Your task to perform on an android device: toggle priority inbox in the gmail app Image 0: 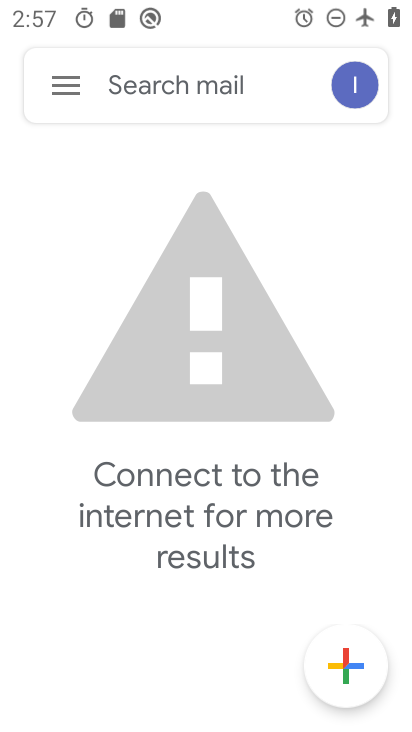
Step 0: press home button
Your task to perform on an android device: toggle priority inbox in the gmail app Image 1: 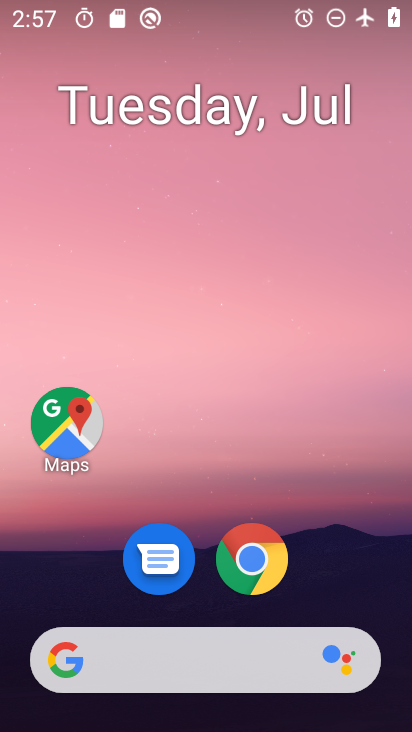
Step 1: drag from (326, 566) to (368, 147)
Your task to perform on an android device: toggle priority inbox in the gmail app Image 2: 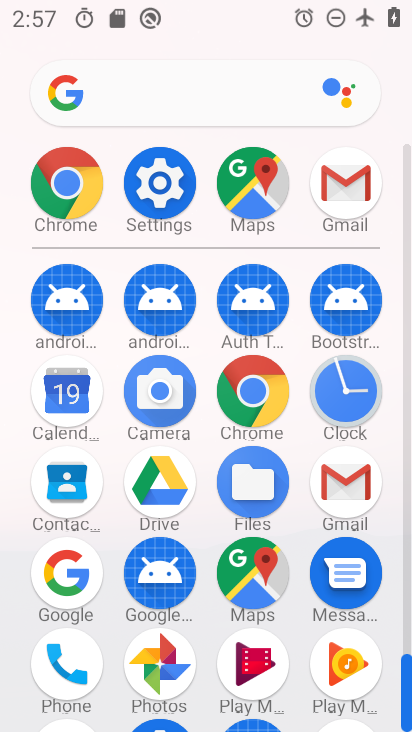
Step 2: click (352, 192)
Your task to perform on an android device: toggle priority inbox in the gmail app Image 3: 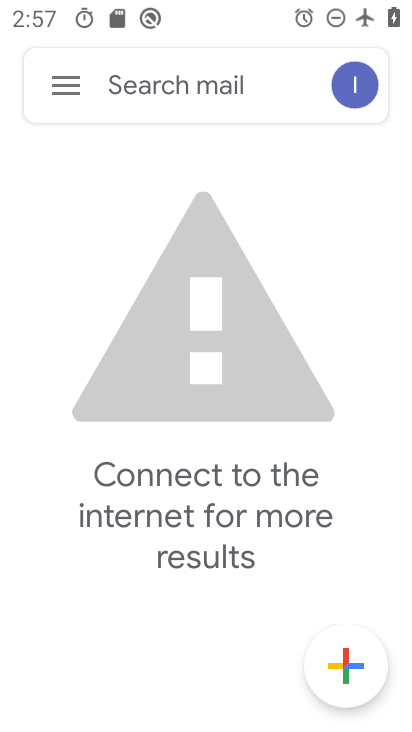
Step 3: click (66, 86)
Your task to perform on an android device: toggle priority inbox in the gmail app Image 4: 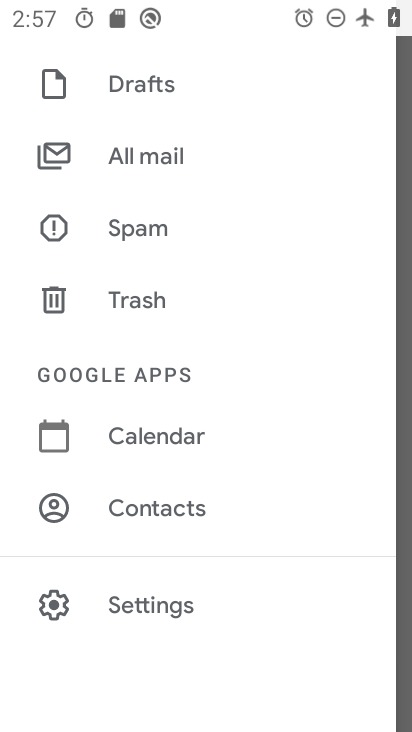
Step 4: click (148, 606)
Your task to perform on an android device: toggle priority inbox in the gmail app Image 5: 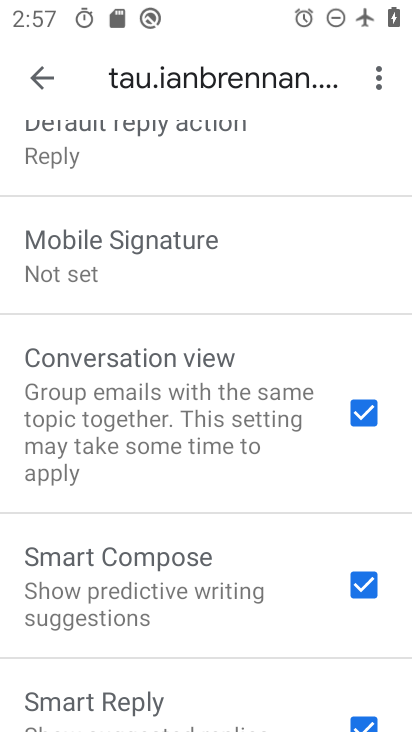
Step 5: task complete